Your task to perform on an android device: Open Google Maps and go to "Timeline" Image 0: 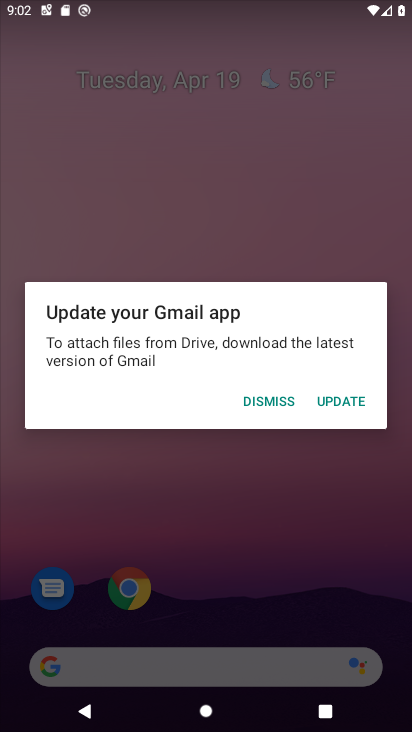
Step 0: press home button
Your task to perform on an android device: Open Google Maps and go to "Timeline" Image 1: 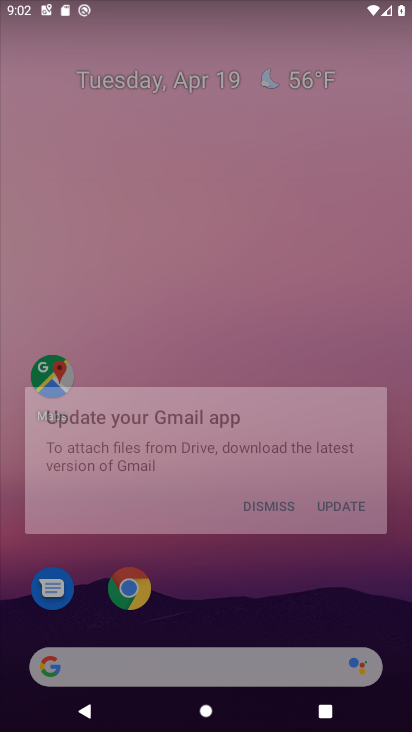
Step 1: press home button
Your task to perform on an android device: Open Google Maps and go to "Timeline" Image 2: 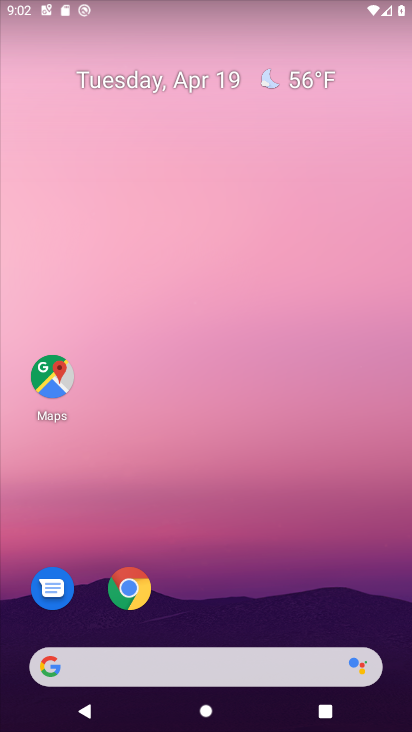
Step 2: click (52, 372)
Your task to perform on an android device: Open Google Maps and go to "Timeline" Image 3: 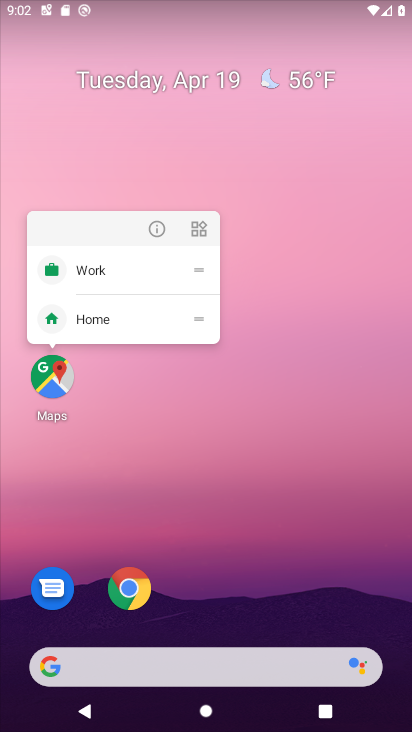
Step 3: click (115, 393)
Your task to perform on an android device: Open Google Maps and go to "Timeline" Image 4: 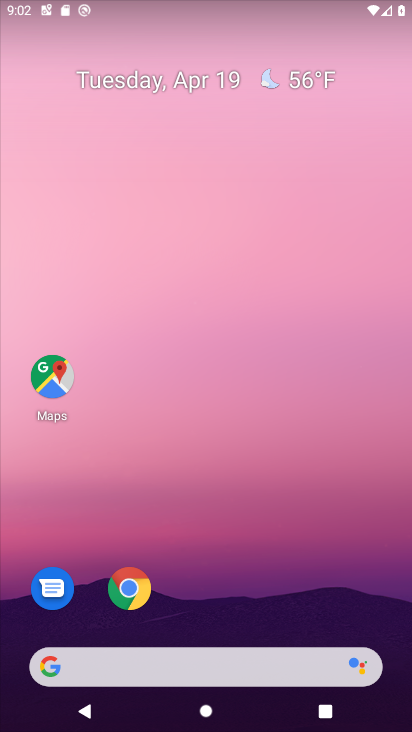
Step 4: click (53, 371)
Your task to perform on an android device: Open Google Maps and go to "Timeline" Image 5: 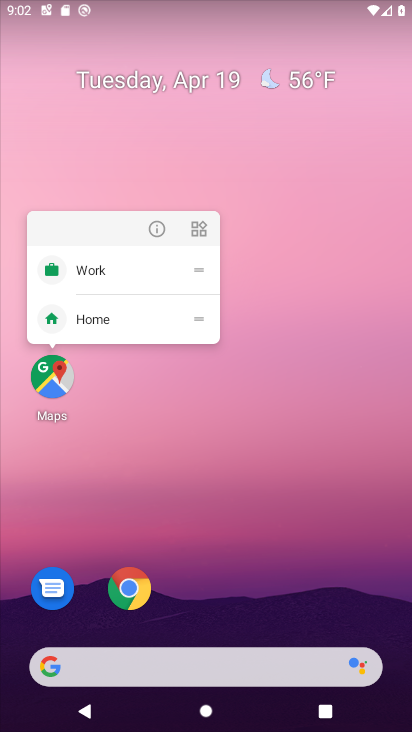
Step 5: click (232, 445)
Your task to perform on an android device: Open Google Maps and go to "Timeline" Image 6: 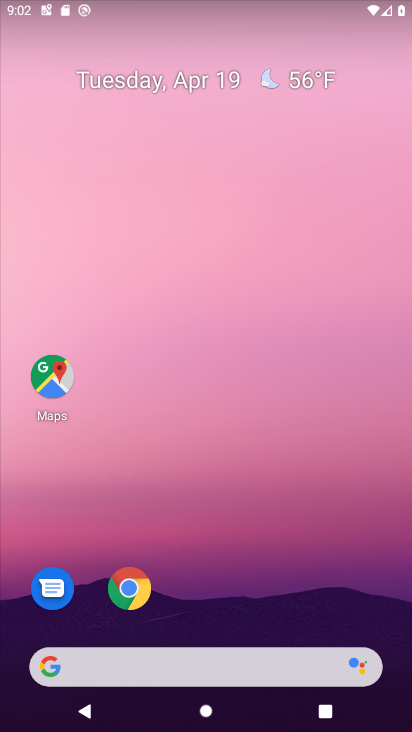
Step 6: click (306, 177)
Your task to perform on an android device: Open Google Maps and go to "Timeline" Image 7: 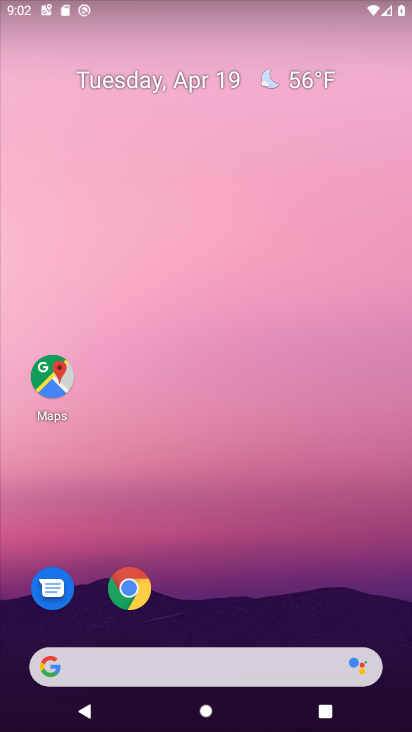
Step 7: click (163, 152)
Your task to perform on an android device: Open Google Maps and go to "Timeline" Image 8: 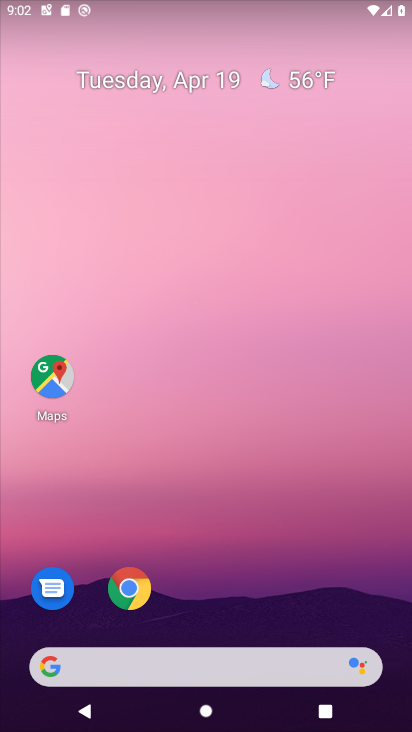
Step 8: click (52, 370)
Your task to perform on an android device: Open Google Maps and go to "Timeline" Image 9: 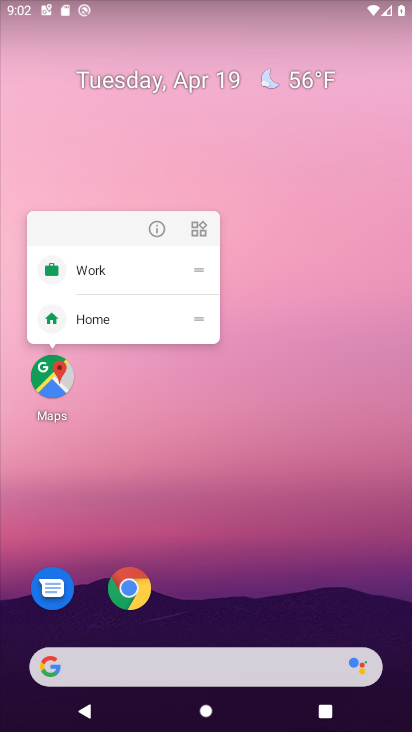
Step 9: click (108, 397)
Your task to perform on an android device: Open Google Maps and go to "Timeline" Image 10: 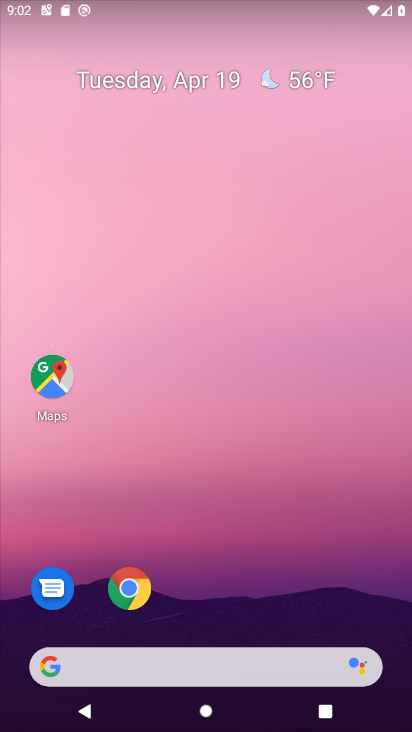
Step 10: click (128, 377)
Your task to perform on an android device: Open Google Maps and go to "Timeline" Image 11: 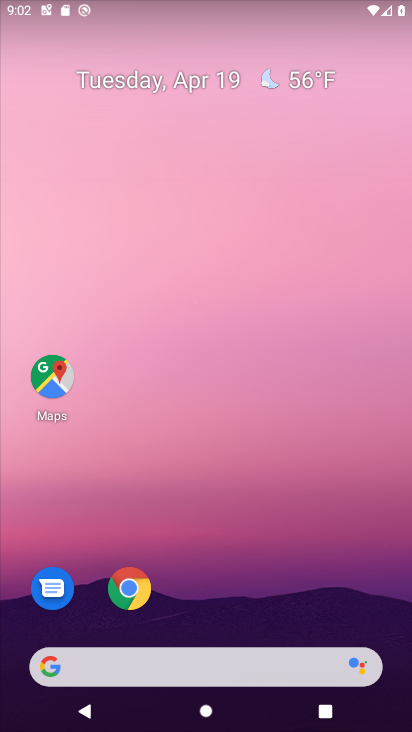
Step 11: click (55, 374)
Your task to perform on an android device: Open Google Maps and go to "Timeline" Image 12: 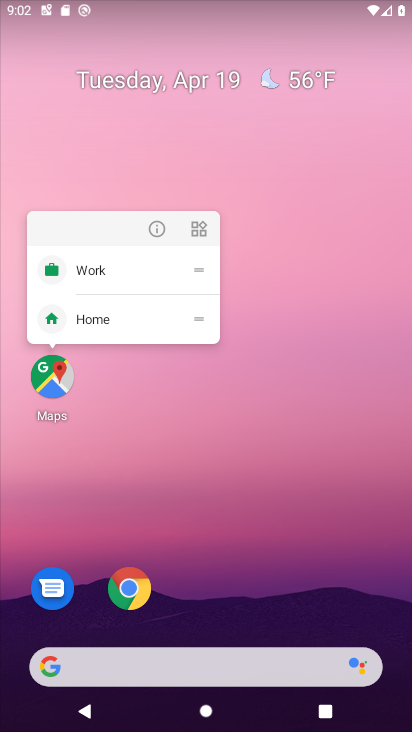
Step 12: click (136, 421)
Your task to perform on an android device: Open Google Maps and go to "Timeline" Image 13: 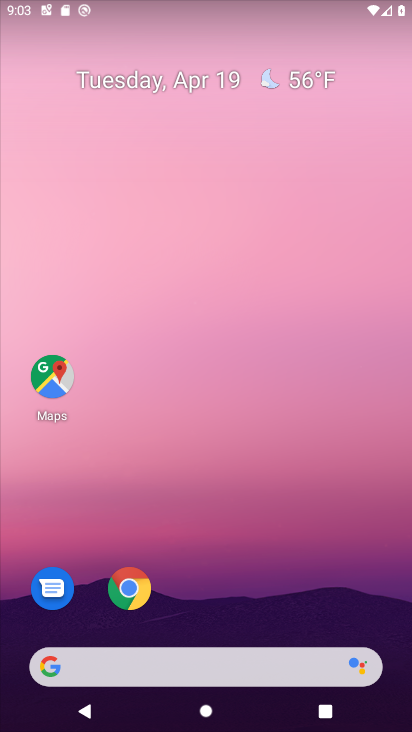
Step 13: drag from (233, 576) to (292, 2)
Your task to perform on an android device: Open Google Maps and go to "Timeline" Image 14: 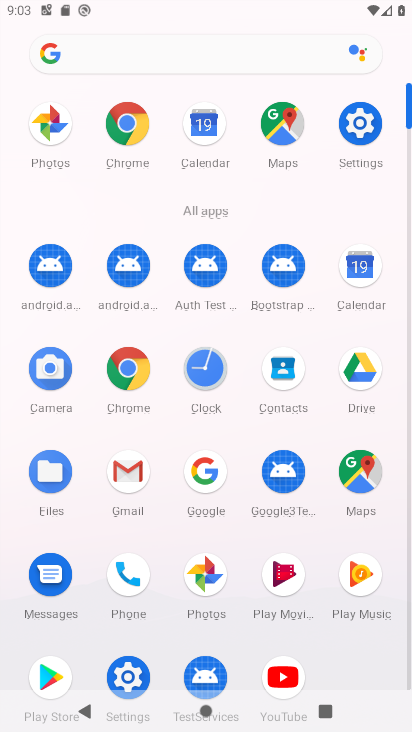
Step 14: click (365, 468)
Your task to perform on an android device: Open Google Maps and go to "Timeline" Image 15: 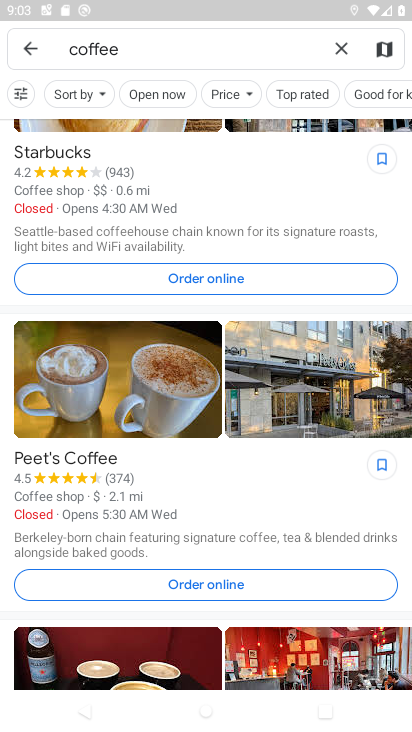
Step 15: click (30, 46)
Your task to perform on an android device: Open Google Maps and go to "Timeline" Image 16: 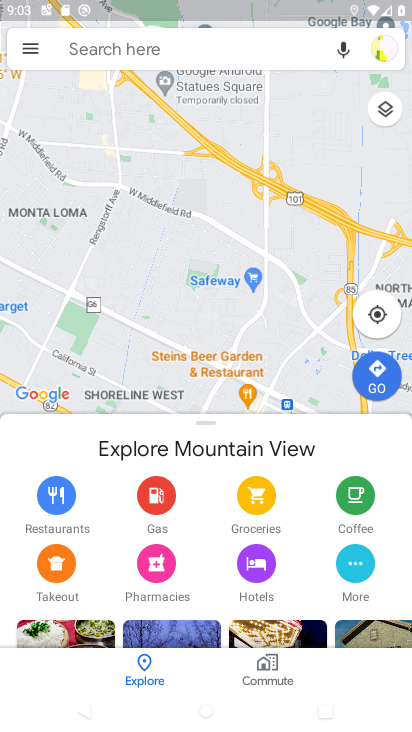
Step 16: click (30, 46)
Your task to perform on an android device: Open Google Maps and go to "Timeline" Image 17: 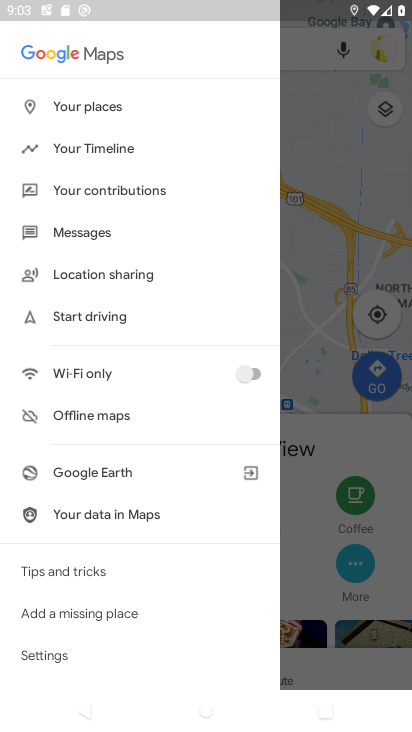
Step 17: click (139, 144)
Your task to perform on an android device: Open Google Maps and go to "Timeline" Image 18: 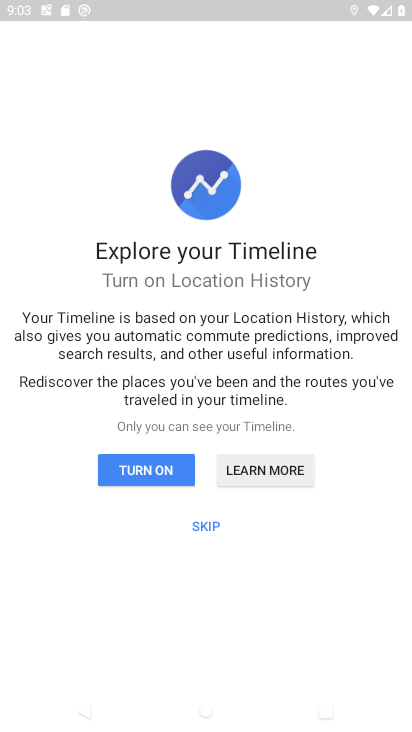
Step 18: click (146, 467)
Your task to perform on an android device: Open Google Maps and go to "Timeline" Image 19: 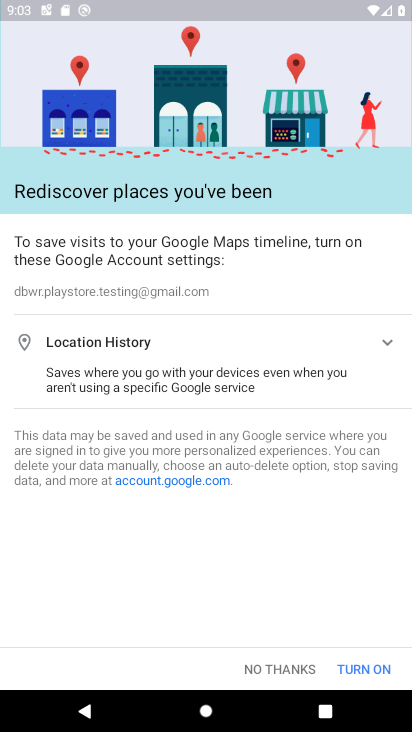
Step 19: click (374, 667)
Your task to perform on an android device: Open Google Maps and go to "Timeline" Image 20: 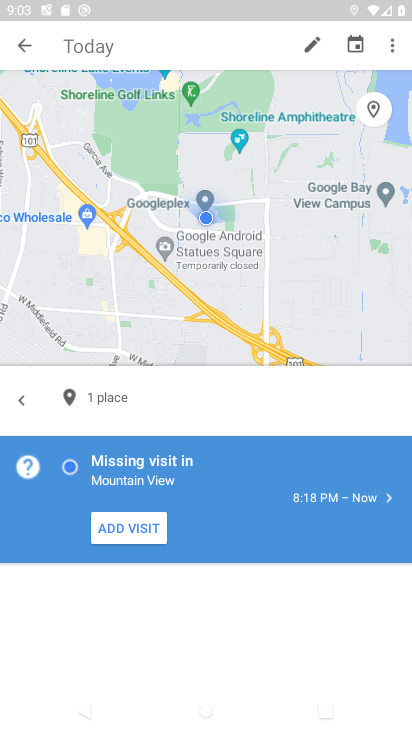
Step 20: task complete